Your task to perform on an android device: set the stopwatch Image 0: 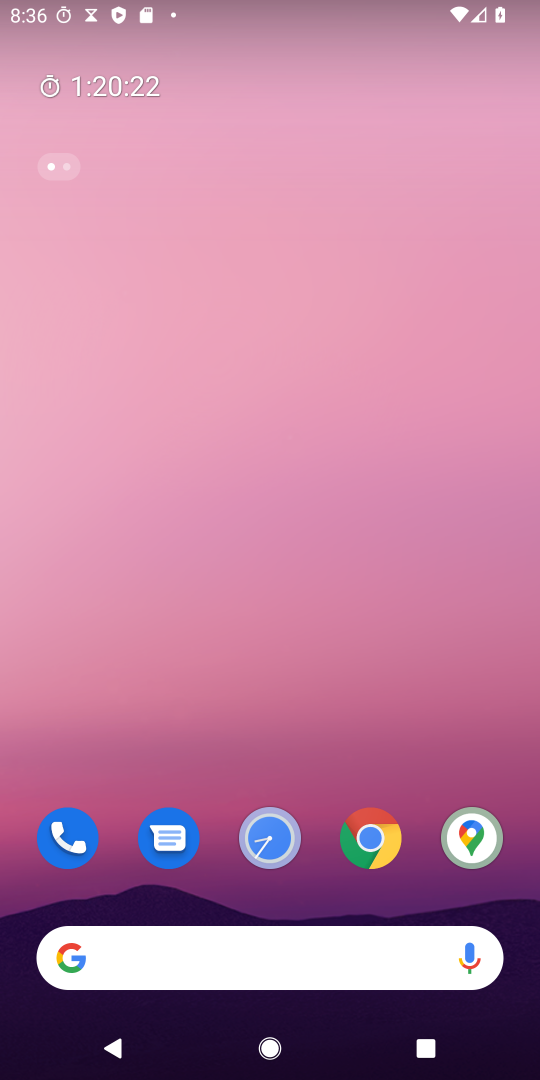
Step 0: press home button
Your task to perform on an android device: set the stopwatch Image 1: 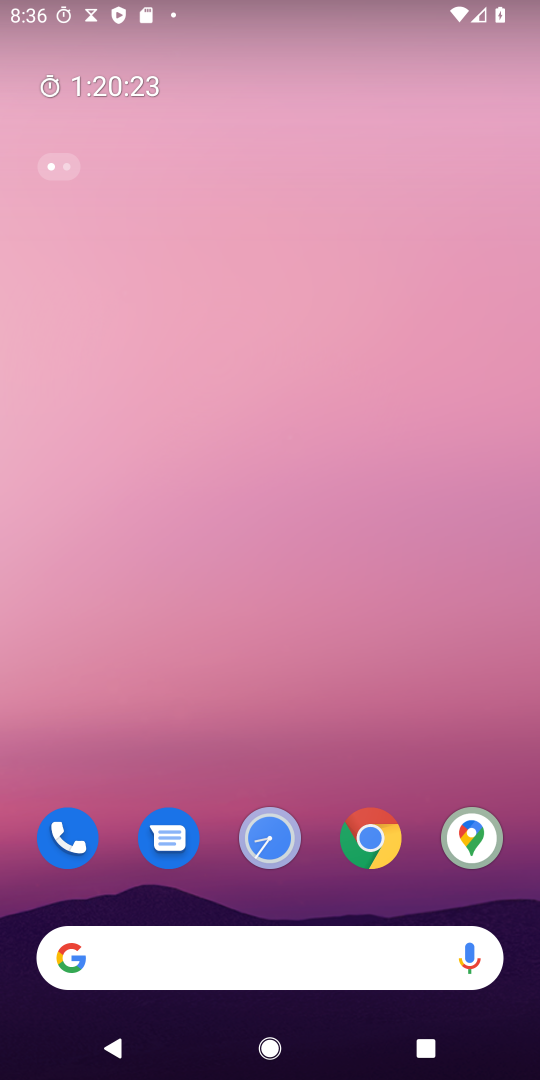
Step 1: drag from (451, 741) to (276, 1)
Your task to perform on an android device: set the stopwatch Image 2: 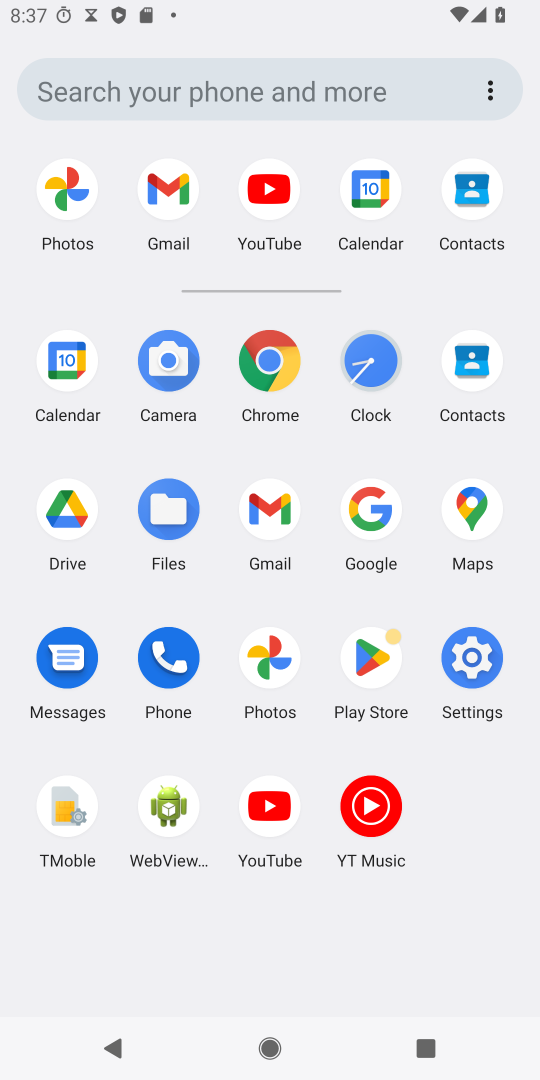
Step 2: click (370, 399)
Your task to perform on an android device: set the stopwatch Image 3: 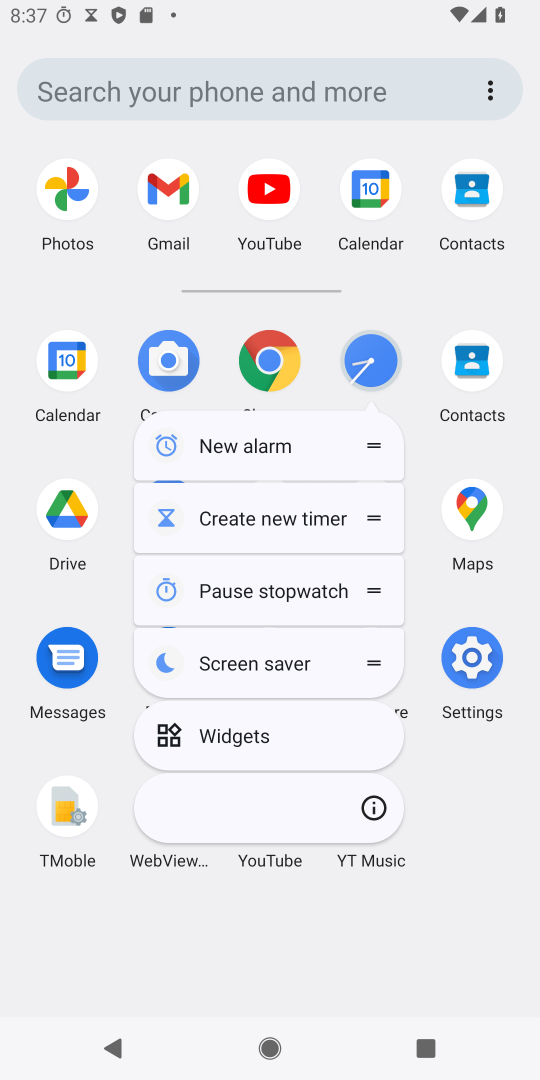
Step 3: click (378, 368)
Your task to perform on an android device: set the stopwatch Image 4: 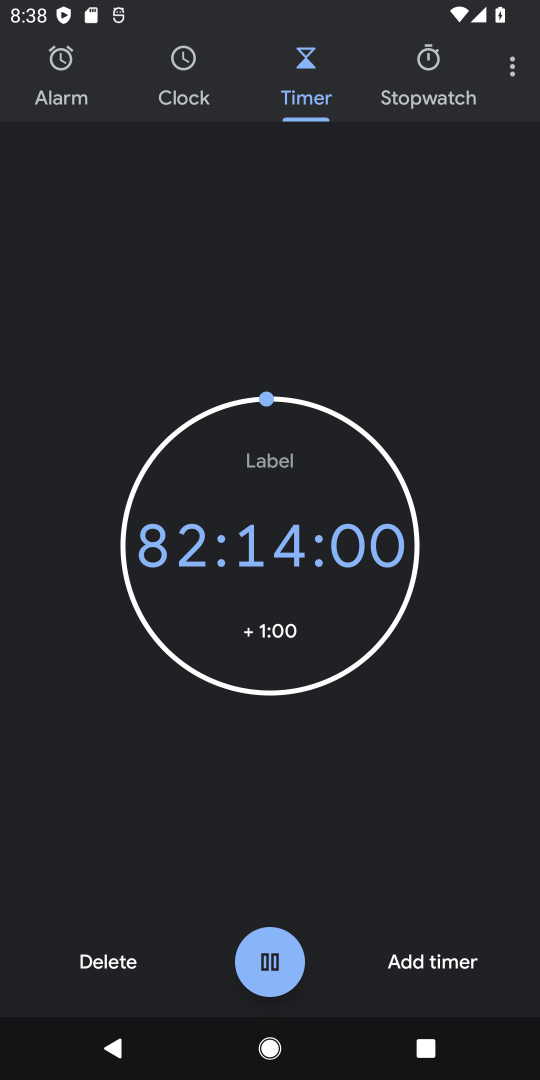
Step 4: click (394, 95)
Your task to perform on an android device: set the stopwatch Image 5: 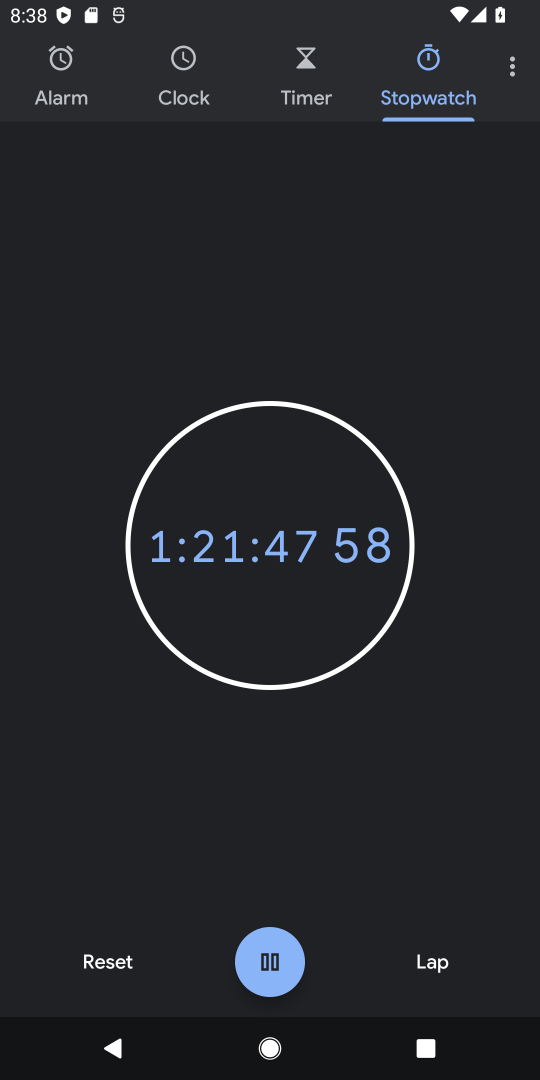
Step 5: click (122, 964)
Your task to perform on an android device: set the stopwatch Image 6: 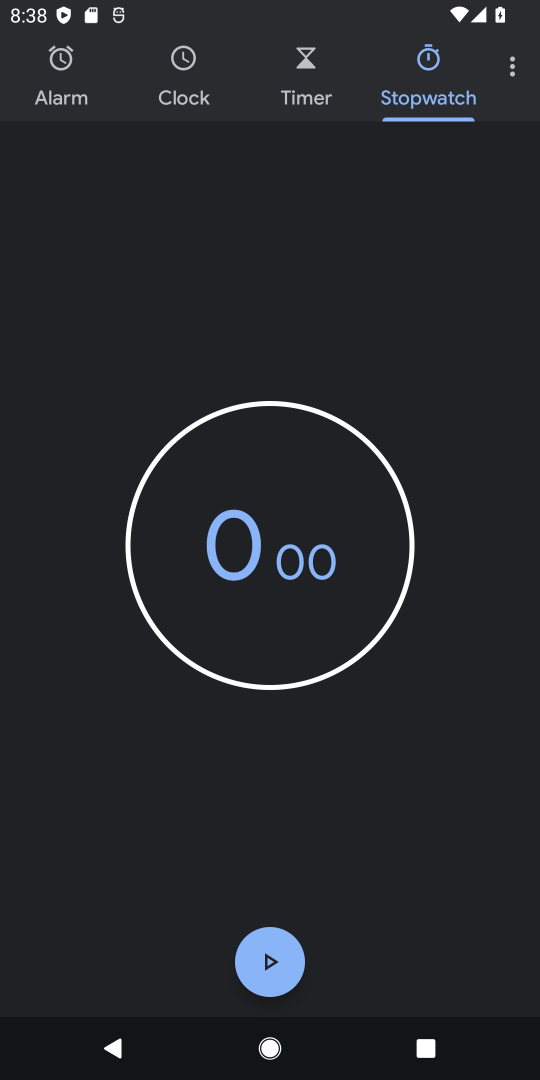
Step 6: click (279, 960)
Your task to perform on an android device: set the stopwatch Image 7: 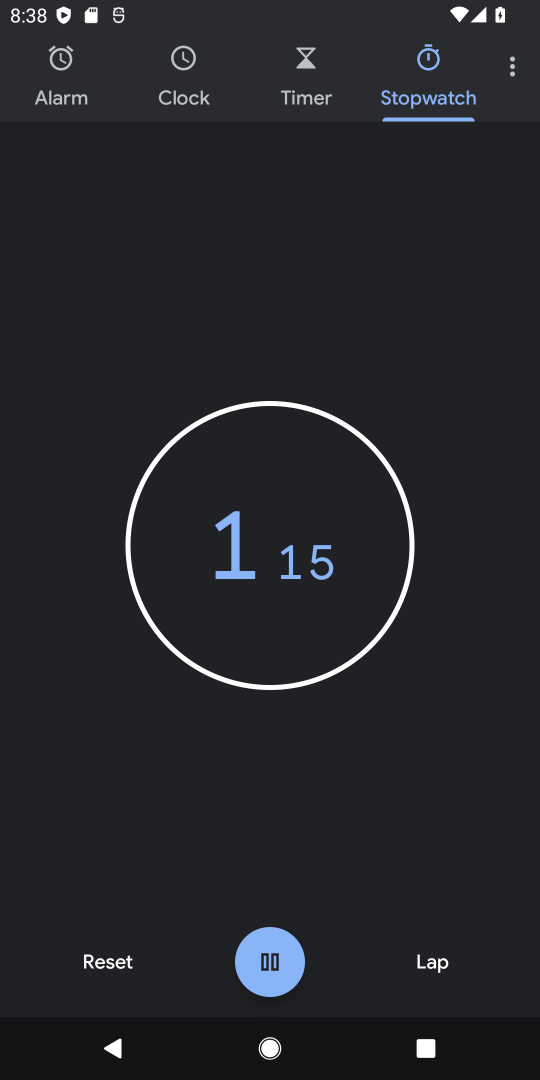
Step 7: task complete